Your task to perform on an android device: Go to Google Image 0: 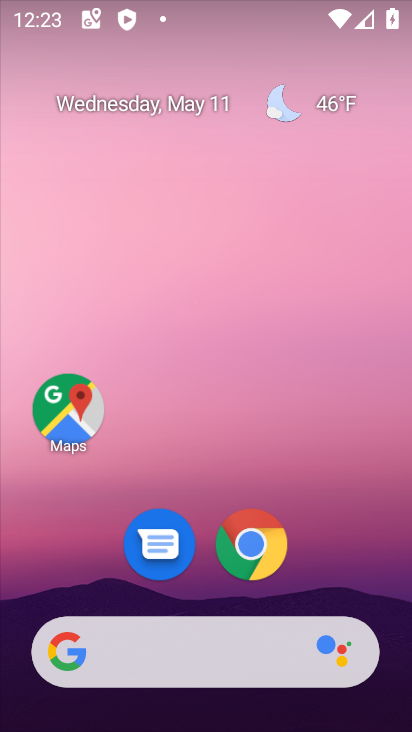
Step 0: click (257, 546)
Your task to perform on an android device: Go to Google Image 1: 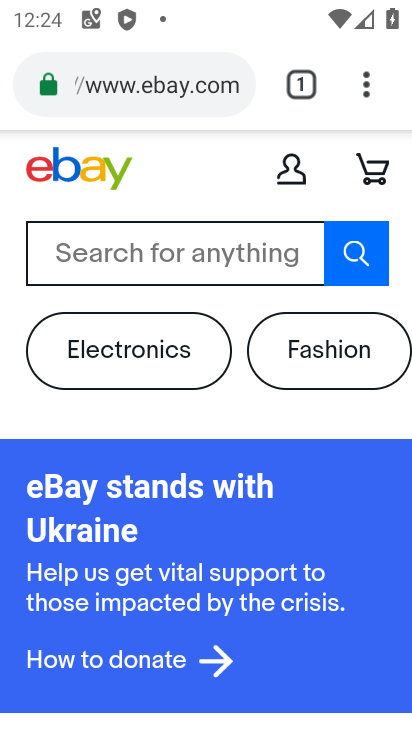
Step 1: task complete